Your task to perform on an android device: Toggle the flashlight Image 0: 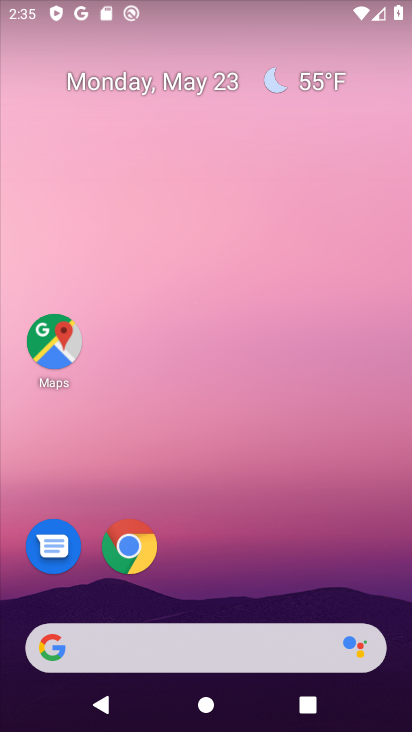
Step 0: press home button
Your task to perform on an android device: Toggle the flashlight Image 1: 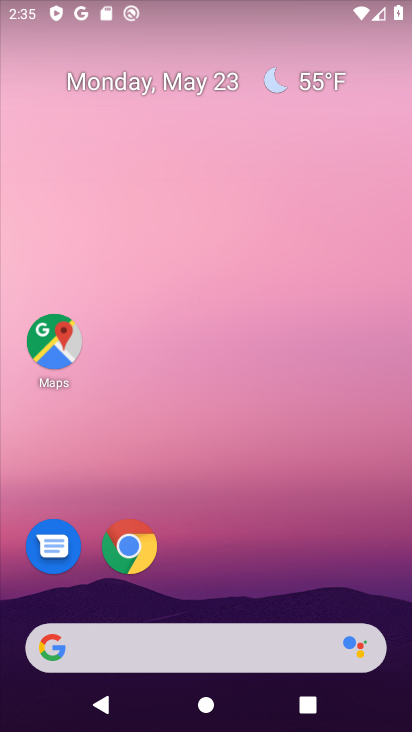
Step 1: drag from (361, 578) to (329, 123)
Your task to perform on an android device: Toggle the flashlight Image 2: 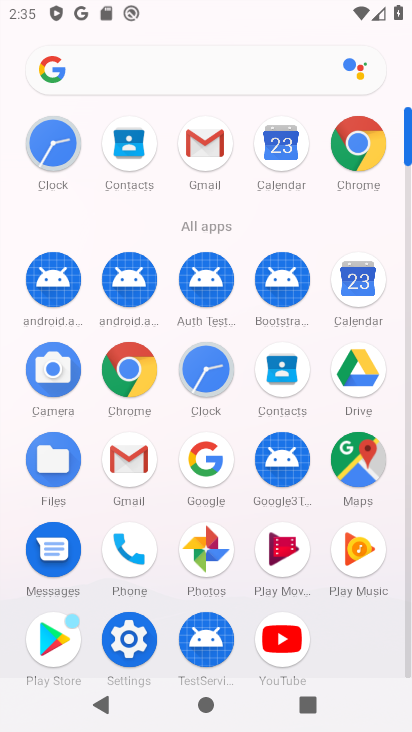
Step 2: click (121, 651)
Your task to perform on an android device: Toggle the flashlight Image 3: 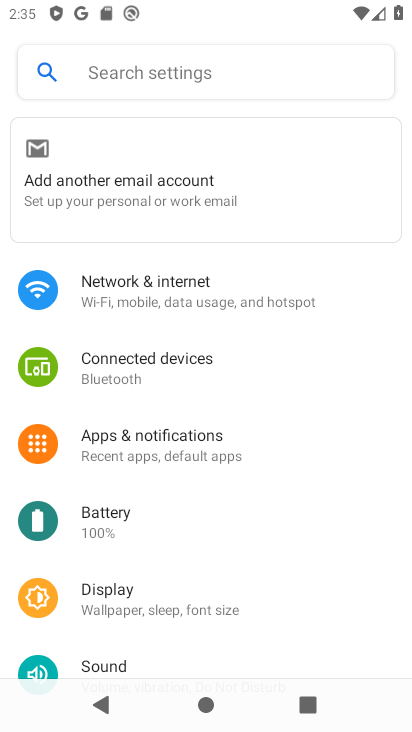
Step 3: click (220, 73)
Your task to perform on an android device: Toggle the flashlight Image 4: 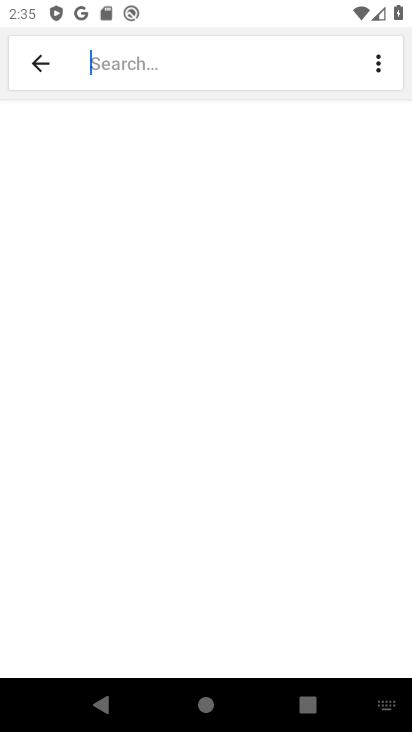
Step 4: type "flashlight"
Your task to perform on an android device: Toggle the flashlight Image 5: 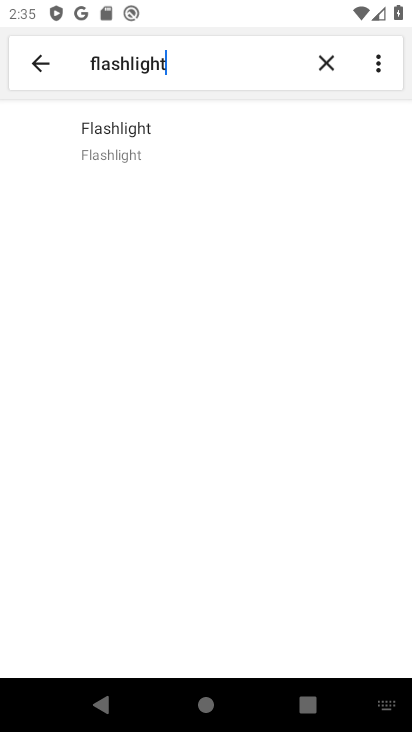
Step 5: click (104, 149)
Your task to perform on an android device: Toggle the flashlight Image 6: 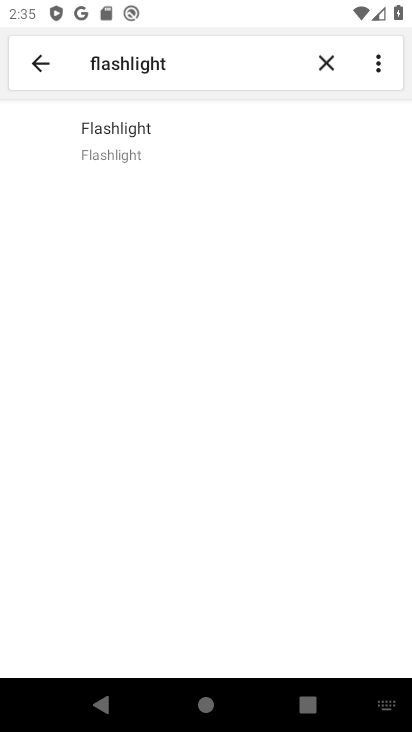
Step 6: task complete